Your task to perform on an android device: Open calendar and show me the second week of next month Image 0: 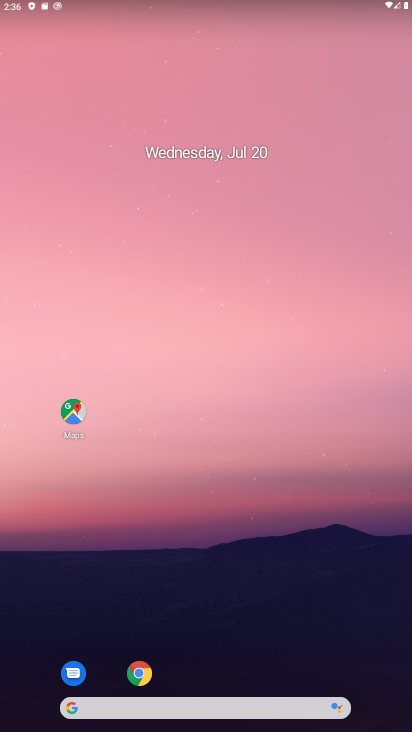
Step 0: drag from (276, 581) to (294, 74)
Your task to perform on an android device: Open calendar and show me the second week of next month Image 1: 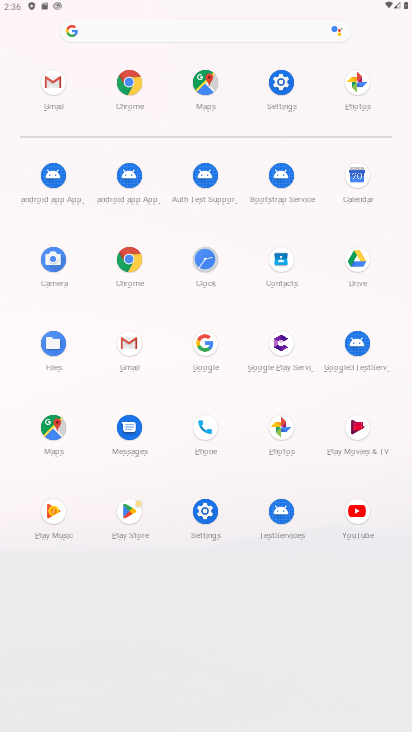
Step 1: click (357, 168)
Your task to perform on an android device: Open calendar and show me the second week of next month Image 2: 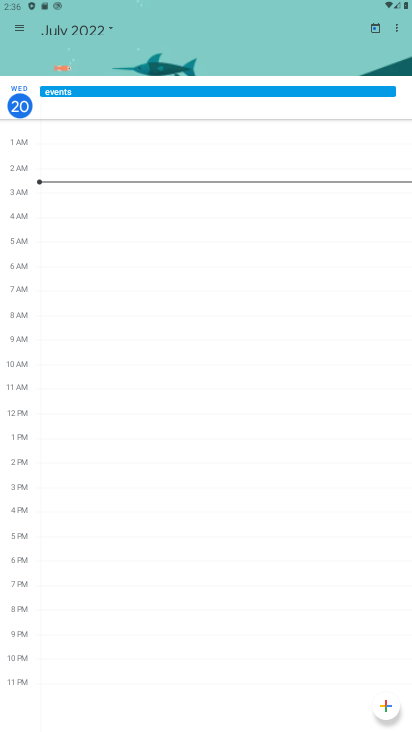
Step 2: click (94, 30)
Your task to perform on an android device: Open calendar and show me the second week of next month Image 3: 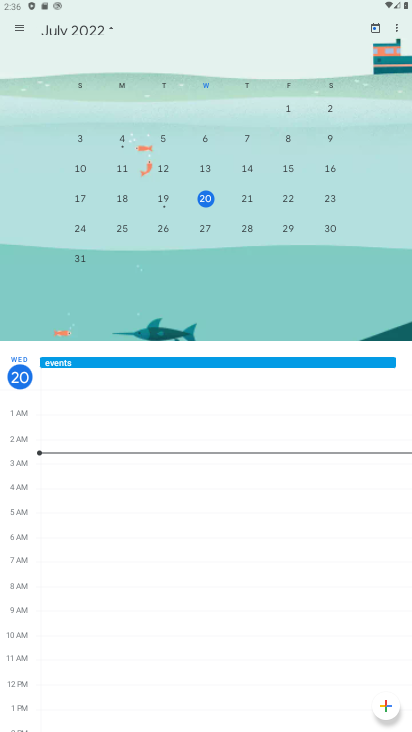
Step 3: drag from (285, 203) to (5, 191)
Your task to perform on an android device: Open calendar and show me the second week of next month Image 4: 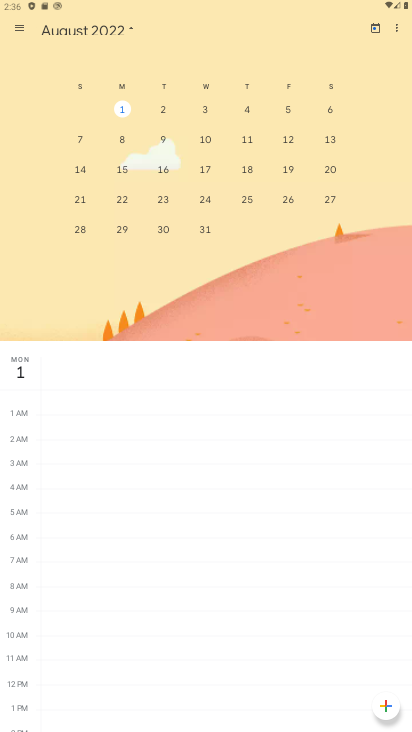
Step 4: click (157, 139)
Your task to perform on an android device: Open calendar and show me the second week of next month Image 5: 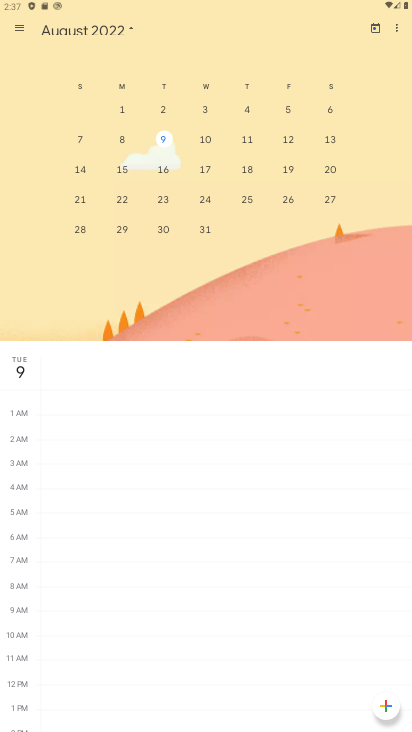
Step 5: click (15, 28)
Your task to perform on an android device: Open calendar and show me the second week of next month Image 6: 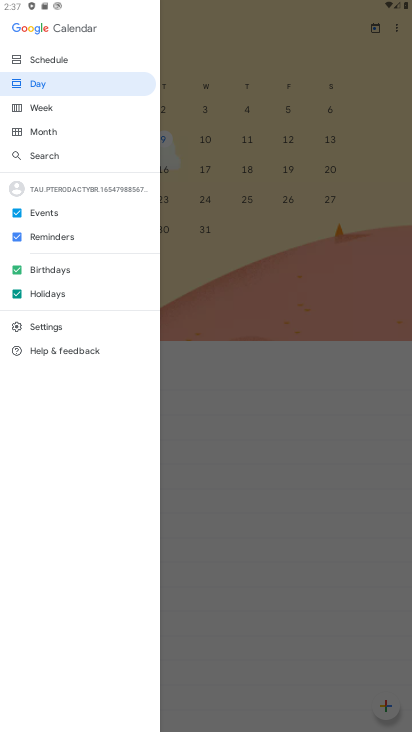
Step 6: click (74, 102)
Your task to perform on an android device: Open calendar and show me the second week of next month Image 7: 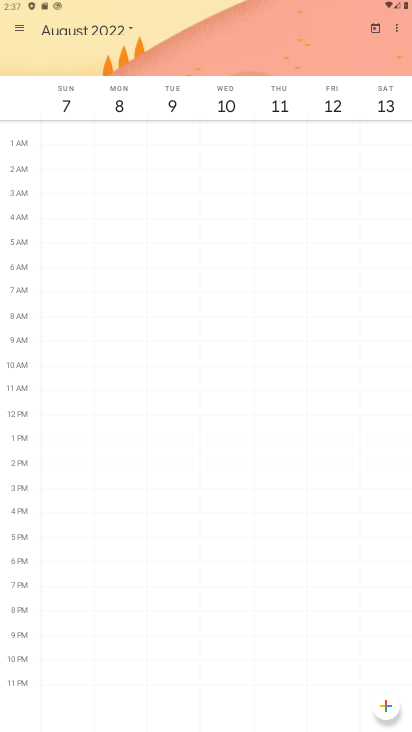
Step 7: task complete